Your task to perform on an android device: add a contact in the contacts app Image 0: 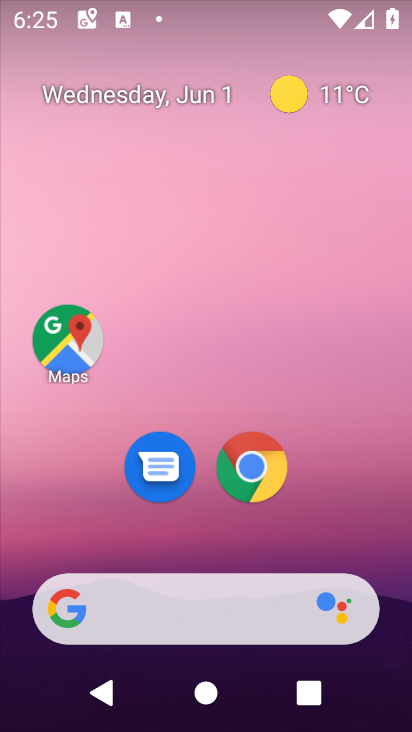
Step 0: drag from (332, 531) to (196, 52)
Your task to perform on an android device: add a contact in the contacts app Image 1: 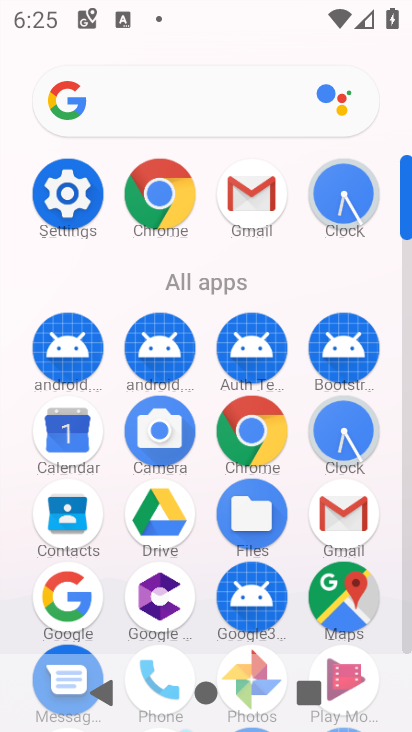
Step 1: click (68, 436)
Your task to perform on an android device: add a contact in the contacts app Image 2: 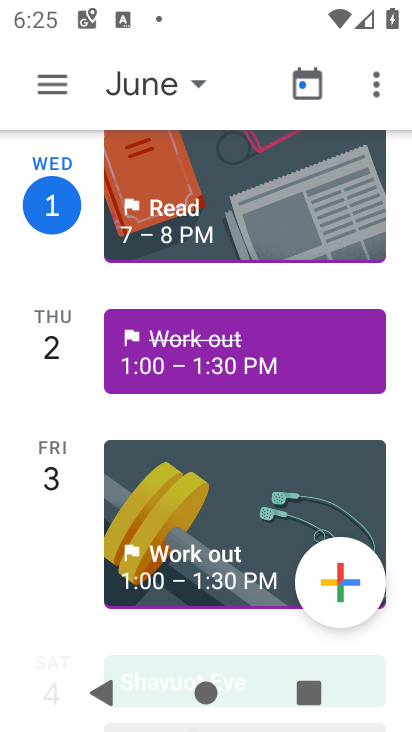
Step 2: press home button
Your task to perform on an android device: add a contact in the contacts app Image 3: 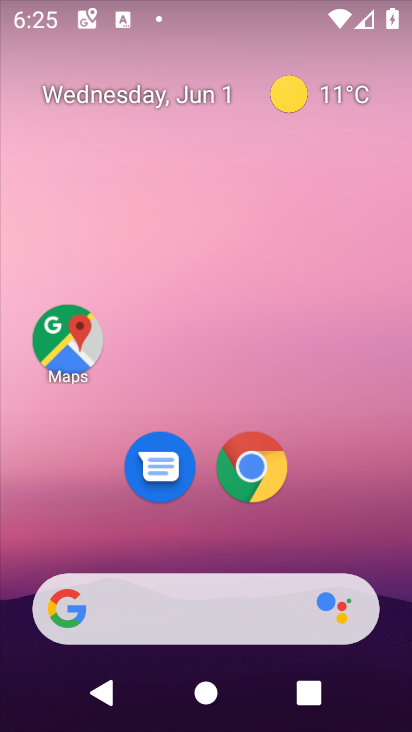
Step 3: drag from (289, 361) to (211, 19)
Your task to perform on an android device: add a contact in the contacts app Image 4: 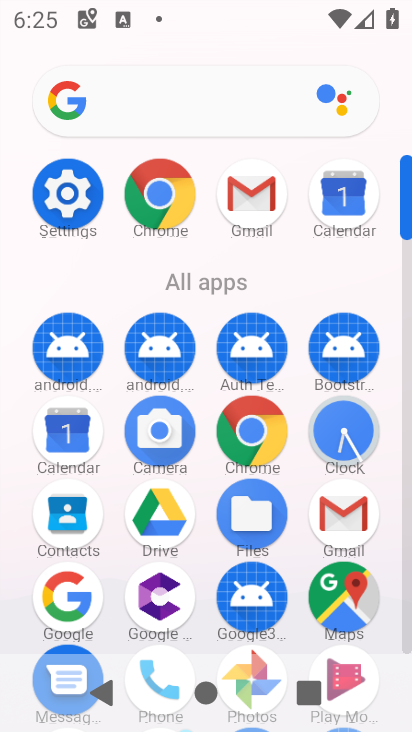
Step 4: click (73, 512)
Your task to perform on an android device: add a contact in the contacts app Image 5: 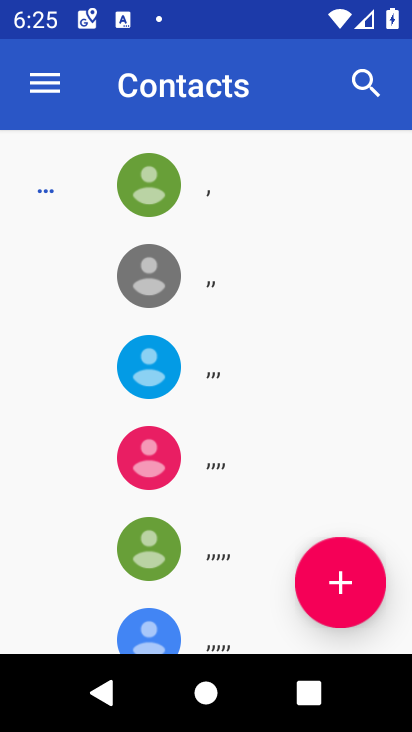
Step 5: click (345, 582)
Your task to perform on an android device: add a contact in the contacts app Image 6: 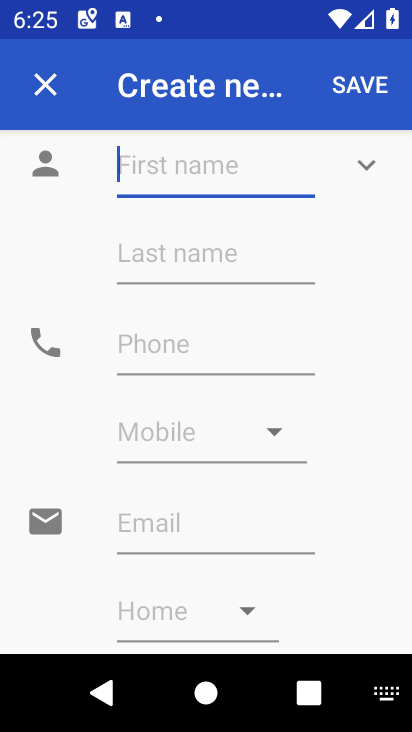
Step 6: type "hfh"
Your task to perform on an android device: add a contact in the contacts app Image 7: 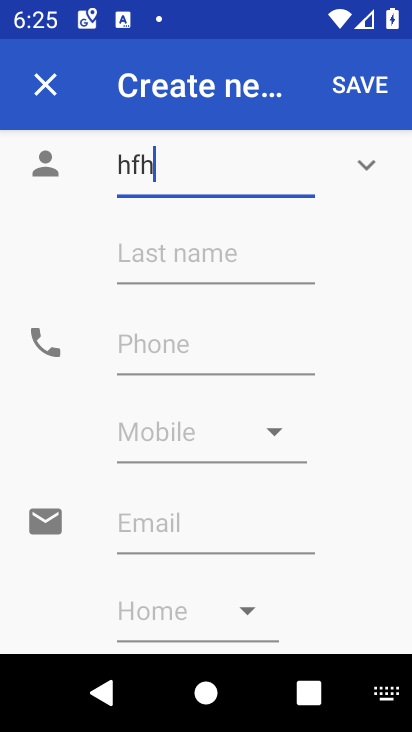
Step 7: type ""
Your task to perform on an android device: add a contact in the contacts app Image 8: 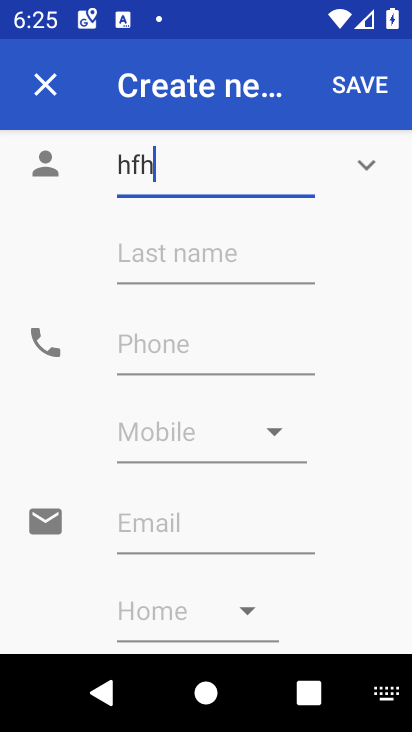
Step 8: click (185, 260)
Your task to perform on an android device: add a contact in the contacts app Image 9: 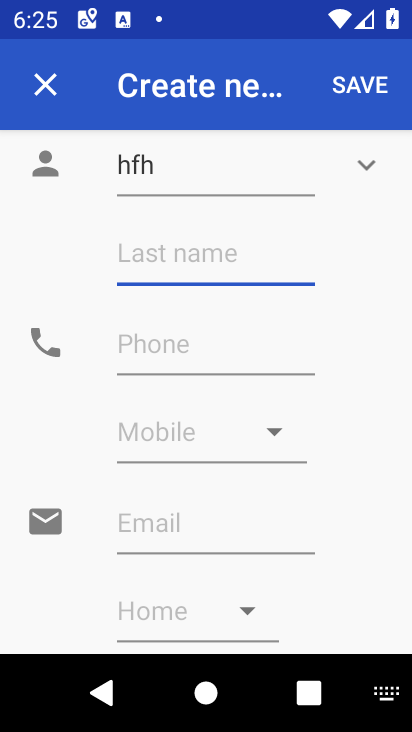
Step 9: type "dfs"
Your task to perform on an android device: add a contact in the contacts app Image 10: 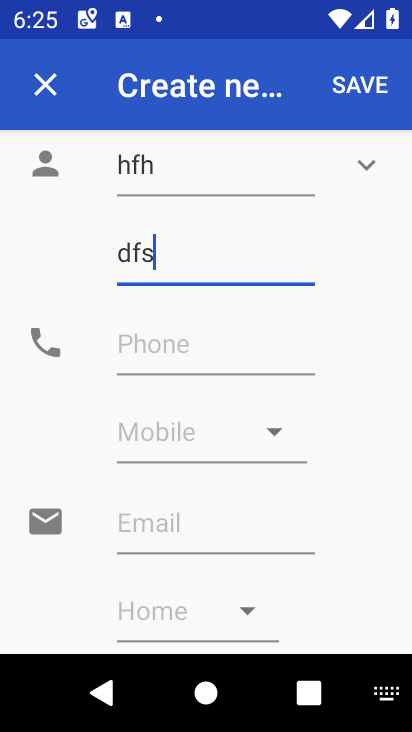
Step 10: click (245, 359)
Your task to perform on an android device: add a contact in the contacts app Image 11: 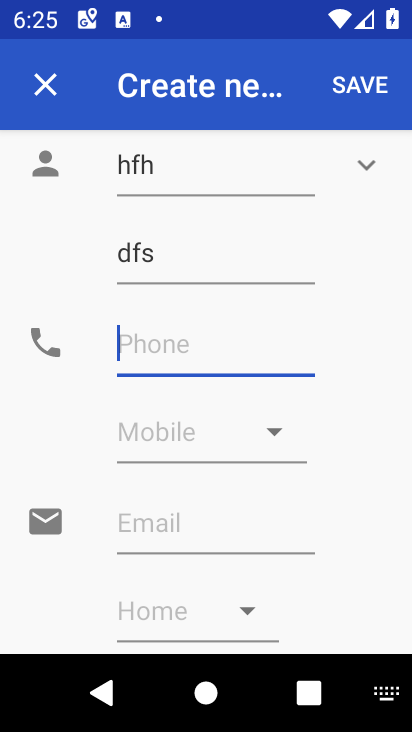
Step 11: type "563453456"
Your task to perform on an android device: add a contact in the contacts app Image 12: 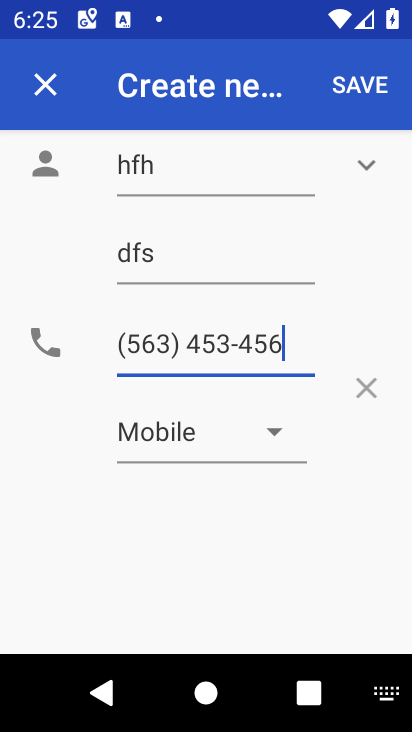
Step 12: type ""
Your task to perform on an android device: add a contact in the contacts app Image 13: 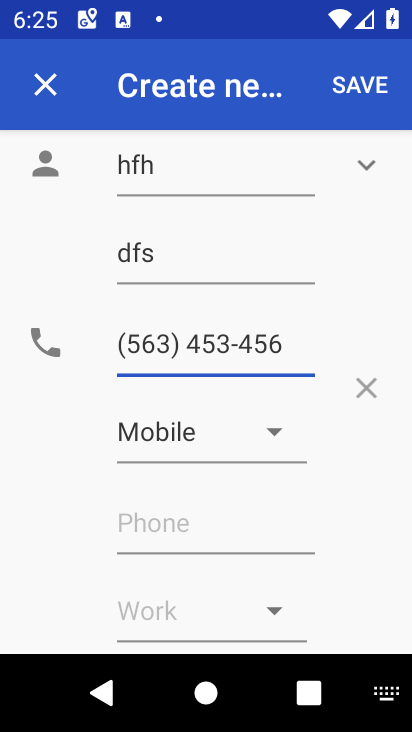
Step 13: click (358, 96)
Your task to perform on an android device: add a contact in the contacts app Image 14: 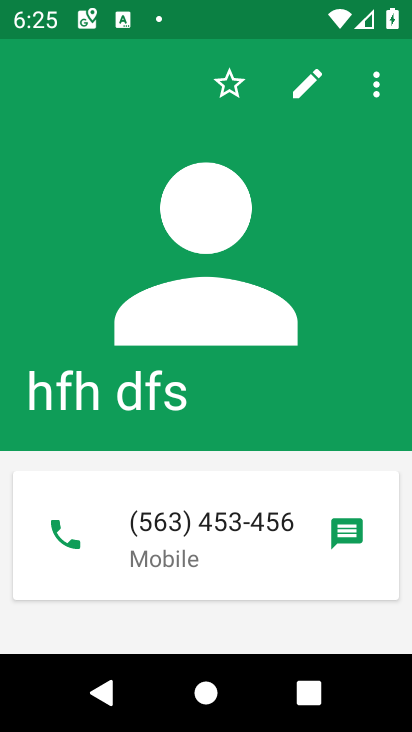
Step 14: task complete